Your task to perform on an android device: find photos in the google photos app Image 0: 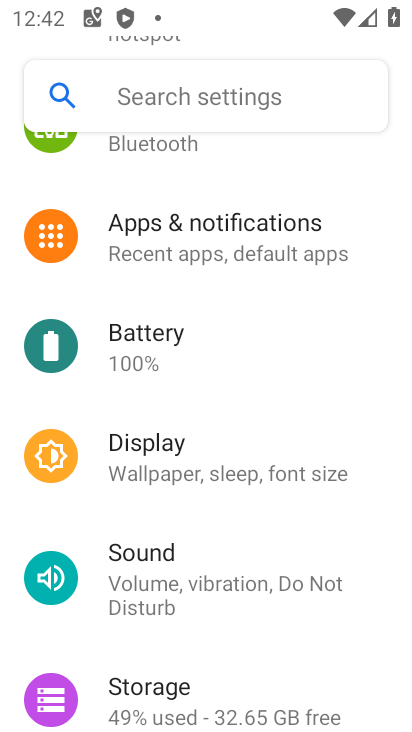
Step 0: press home button
Your task to perform on an android device: find photos in the google photos app Image 1: 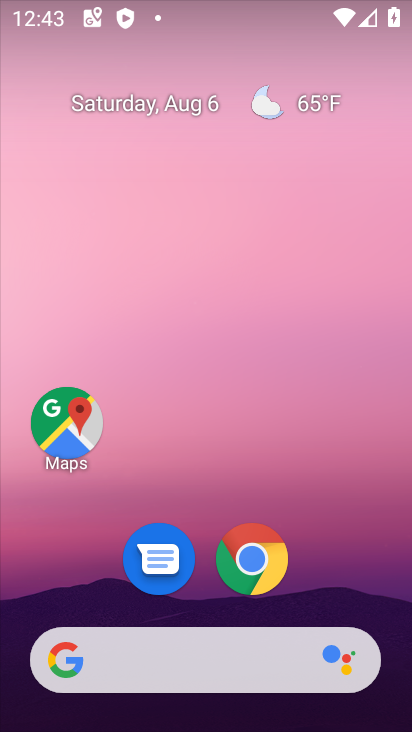
Step 1: drag from (115, 563) to (164, 116)
Your task to perform on an android device: find photos in the google photos app Image 2: 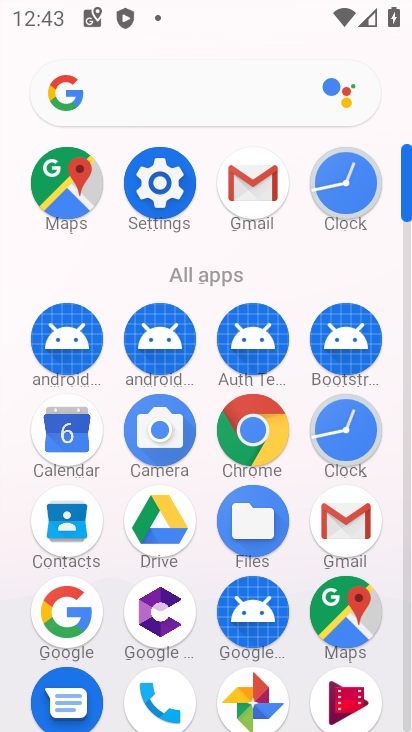
Step 2: click (270, 691)
Your task to perform on an android device: find photos in the google photos app Image 3: 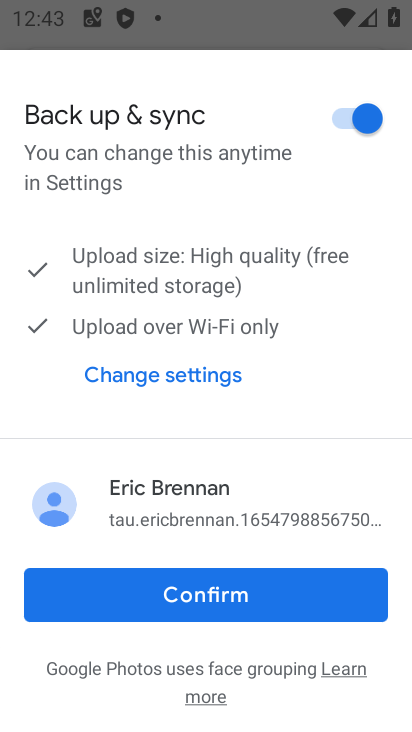
Step 3: click (244, 602)
Your task to perform on an android device: find photos in the google photos app Image 4: 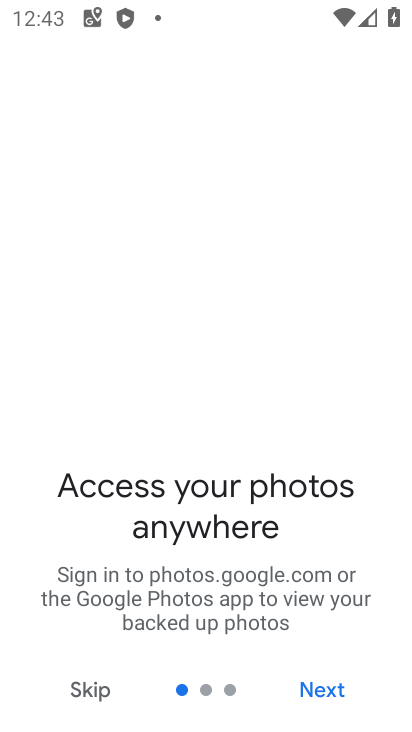
Step 4: click (348, 706)
Your task to perform on an android device: find photos in the google photos app Image 5: 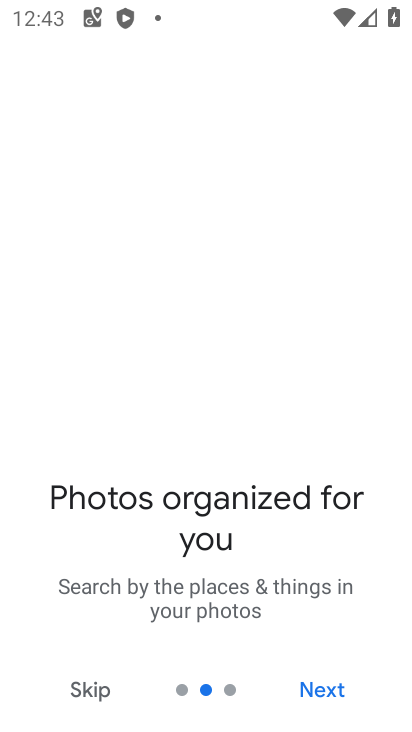
Step 5: click (346, 692)
Your task to perform on an android device: find photos in the google photos app Image 6: 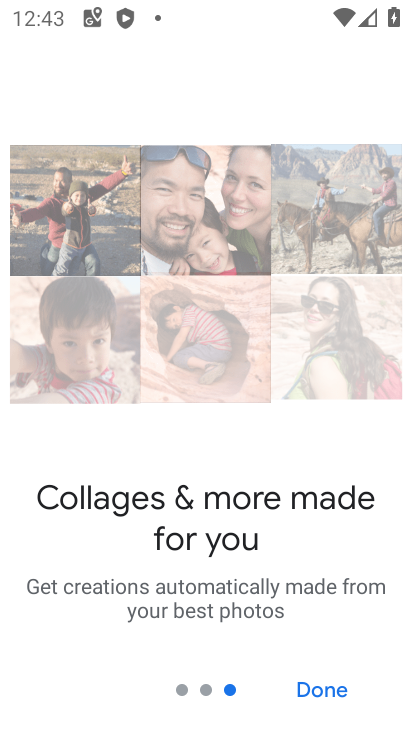
Step 6: click (346, 692)
Your task to perform on an android device: find photos in the google photos app Image 7: 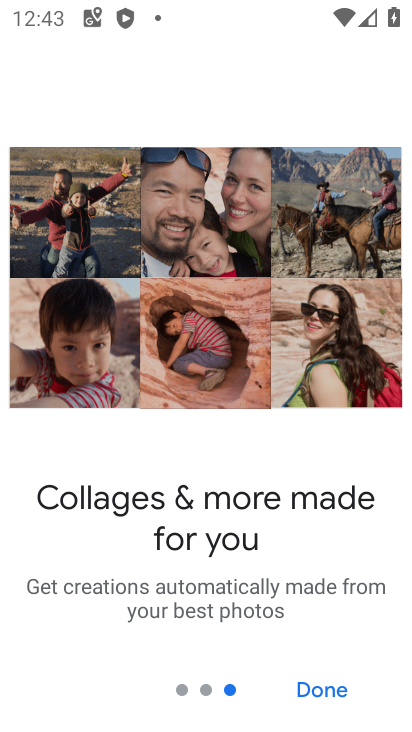
Step 7: click (346, 692)
Your task to perform on an android device: find photos in the google photos app Image 8: 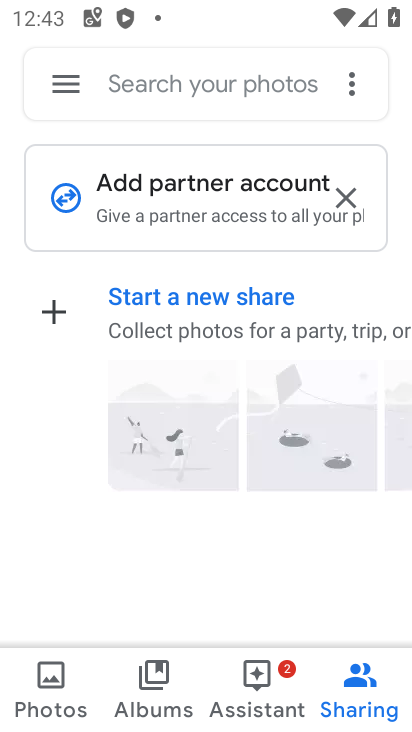
Step 8: click (219, 65)
Your task to perform on an android device: find photos in the google photos app Image 9: 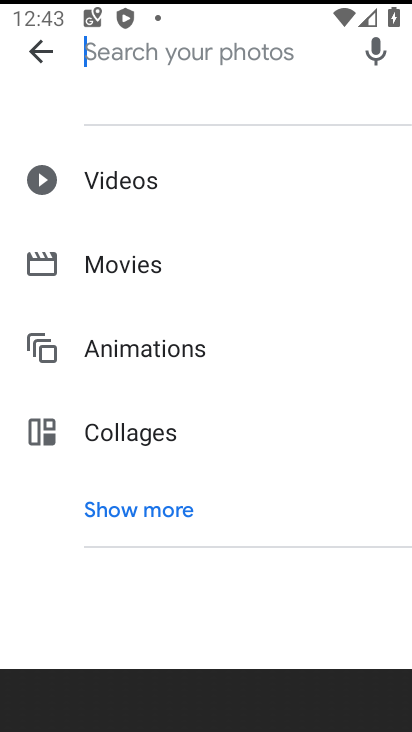
Step 9: task complete